Your task to perform on an android device: Open eBay Image 0: 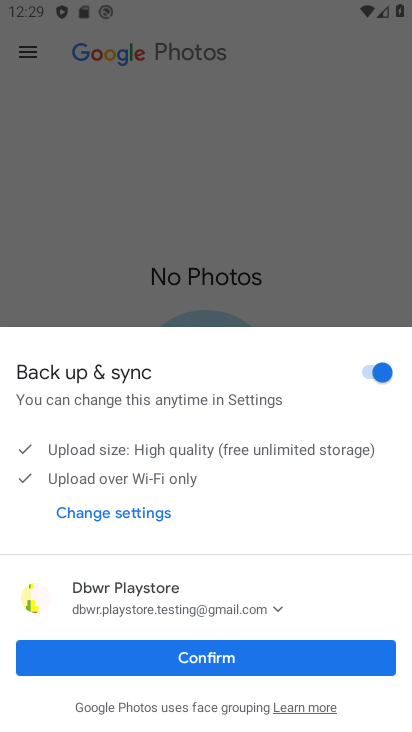
Step 0: press home button
Your task to perform on an android device: Open eBay Image 1: 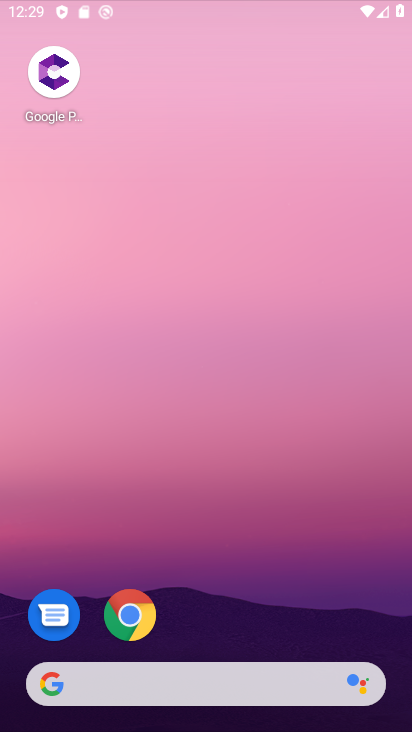
Step 1: drag from (225, 595) to (258, 57)
Your task to perform on an android device: Open eBay Image 2: 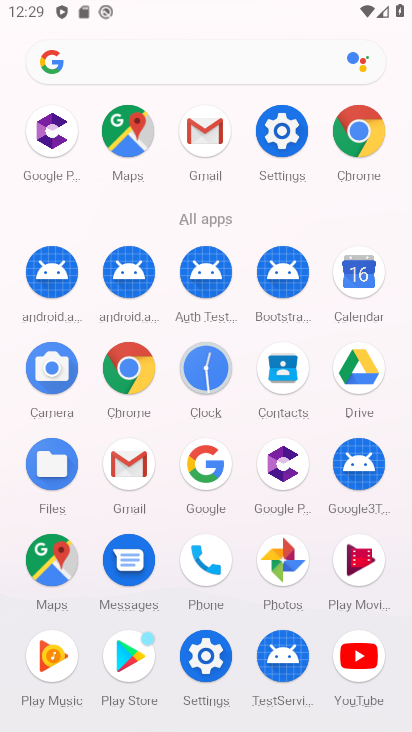
Step 2: click (132, 365)
Your task to perform on an android device: Open eBay Image 3: 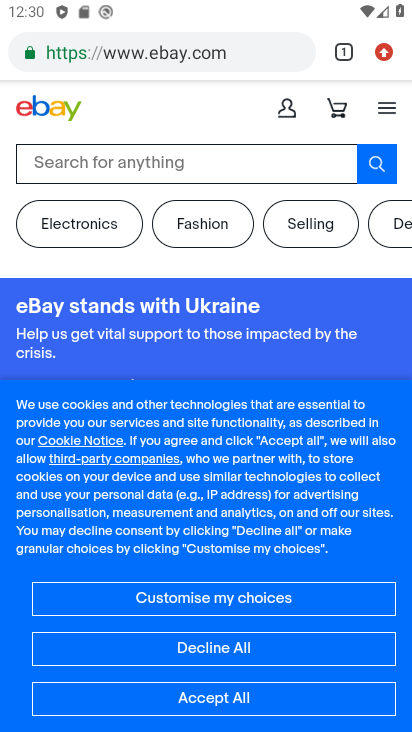
Step 3: task complete